Your task to perform on an android device: turn on data saver in the chrome app Image 0: 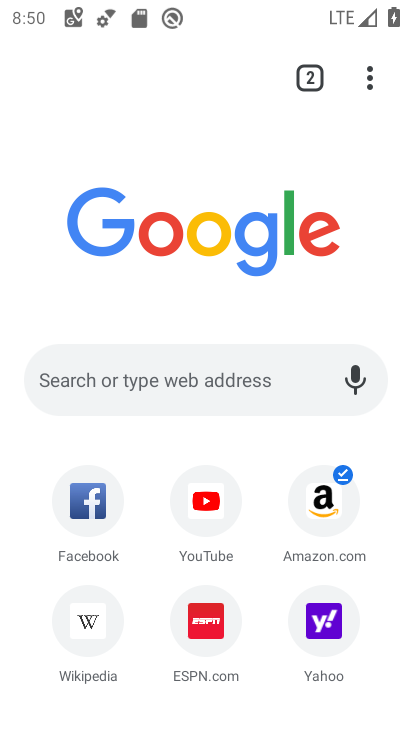
Step 0: press home button
Your task to perform on an android device: turn on data saver in the chrome app Image 1: 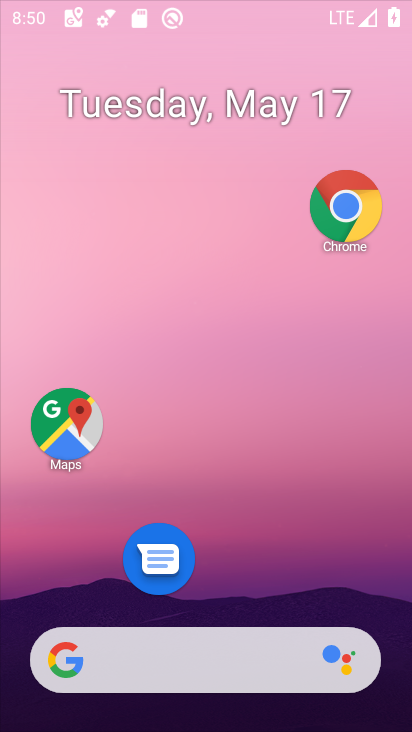
Step 1: drag from (187, 656) to (269, 110)
Your task to perform on an android device: turn on data saver in the chrome app Image 2: 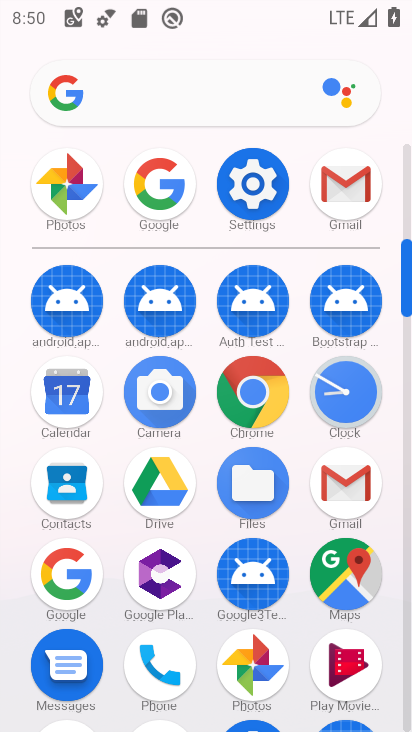
Step 2: click (273, 423)
Your task to perform on an android device: turn on data saver in the chrome app Image 3: 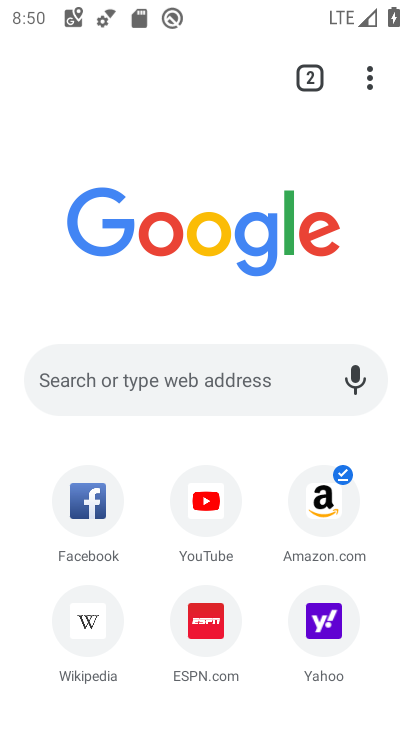
Step 3: click (375, 82)
Your task to perform on an android device: turn on data saver in the chrome app Image 4: 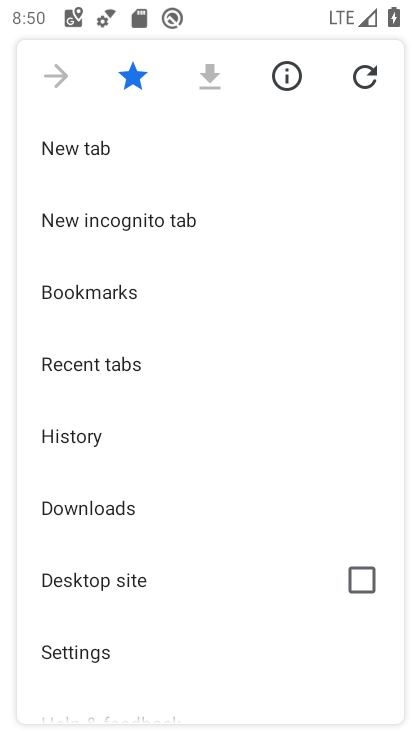
Step 4: drag from (182, 328) to (184, 270)
Your task to perform on an android device: turn on data saver in the chrome app Image 5: 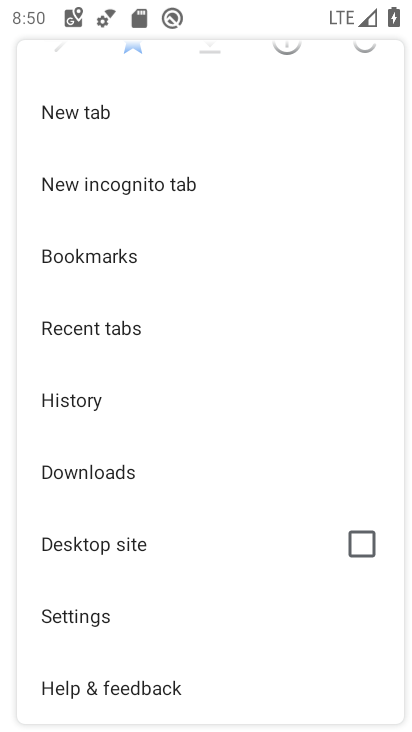
Step 5: drag from (135, 601) to (182, 297)
Your task to perform on an android device: turn on data saver in the chrome app Image 6: 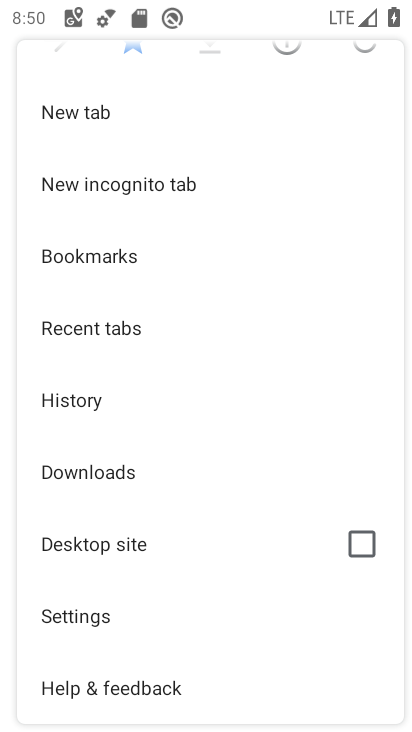
Step 6: drag from (158, 573) to (225, 306)
Your task to perform on an android device: turn on data saver in the chrome app Image 7: 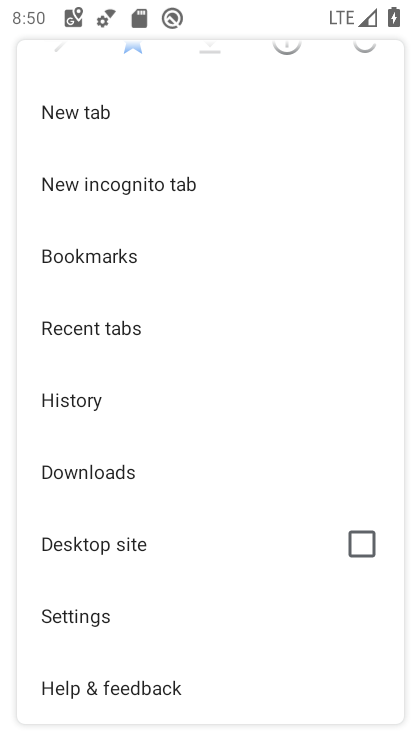
Step 7: drag from (182, 539) to (232, 292)
Your task to perform on an android device: turn on data saver in the chrome app Image 8: 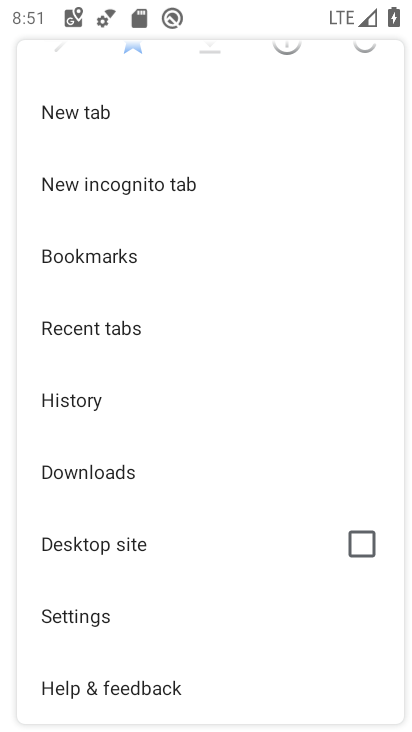
Step 8: click (101, 626)
Your task to perform on an android device: turn on data saver in the chrome app Image 9: 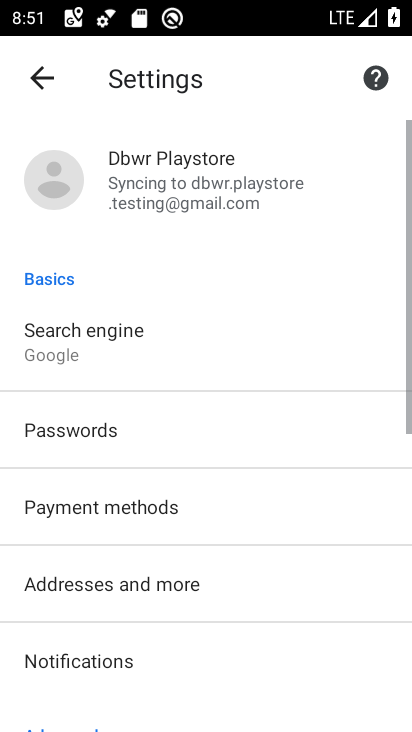
Step 9: drag from (202, 458) to (243, 218)
Your task to perform on an android device: turn on data saver in the chrome app Image 10: 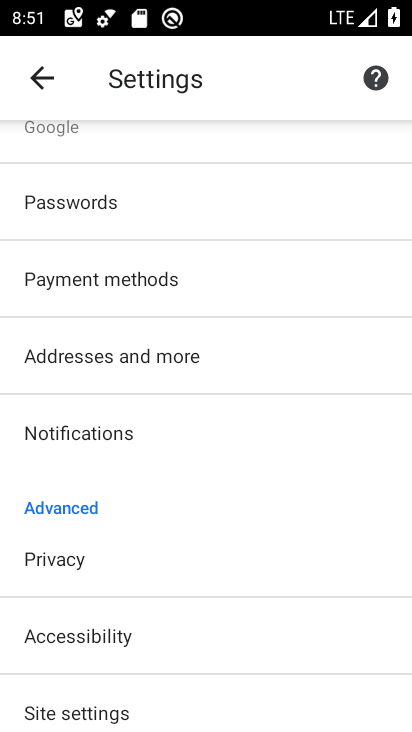
Step 10: drag from (159, 592) to (179, 385)
Your task to perform on an android device: turn on data saver in the chrome app Image 11: 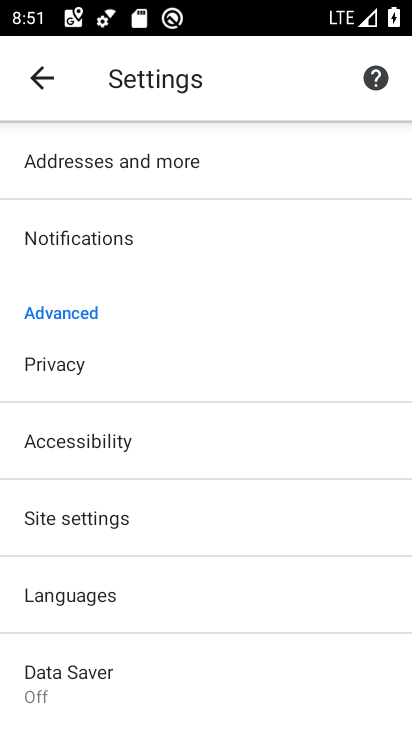
Step 11: drag from (170, 632) to (226, 425)
Your task to perform on an android device: turn on data saver in the chrome app Image 12: 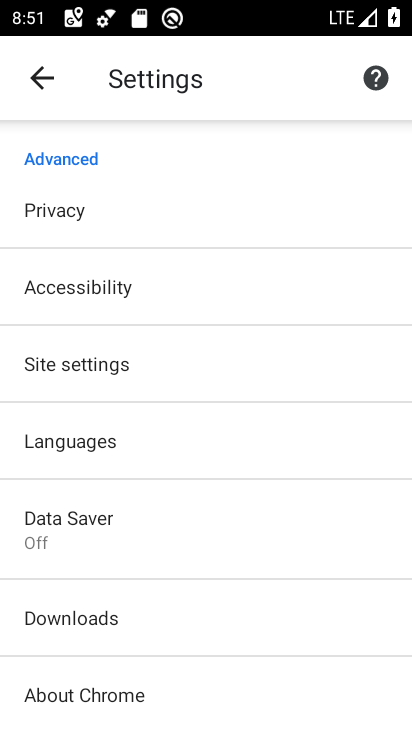
Step 12: click (155, 540)
Your task to perform on an android device: turn on data saver in the chrome app Image 13: 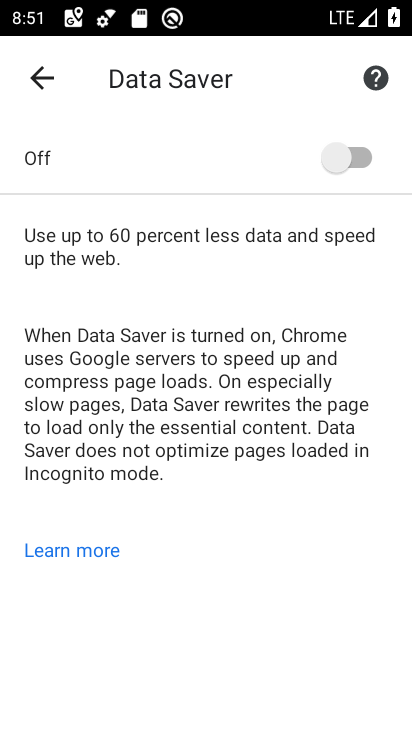
Step 13: click (362, 158)
Your task to perform on an android device: turn on data saver in the chrome app Image 14: 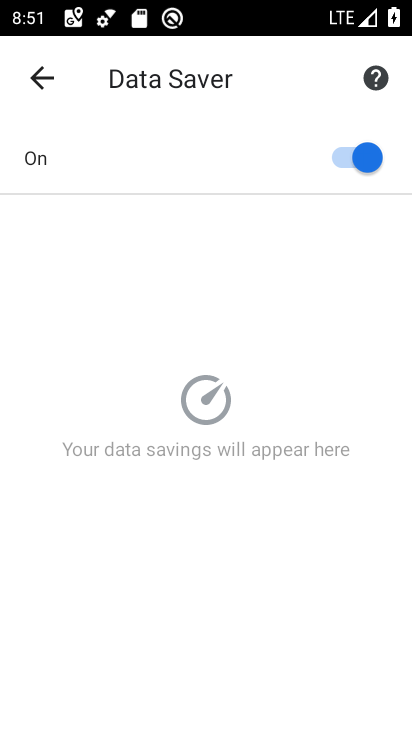
Step 14: task complete